Your task to perform on an android device: turn on priority inbox in the gmail app Image 0: 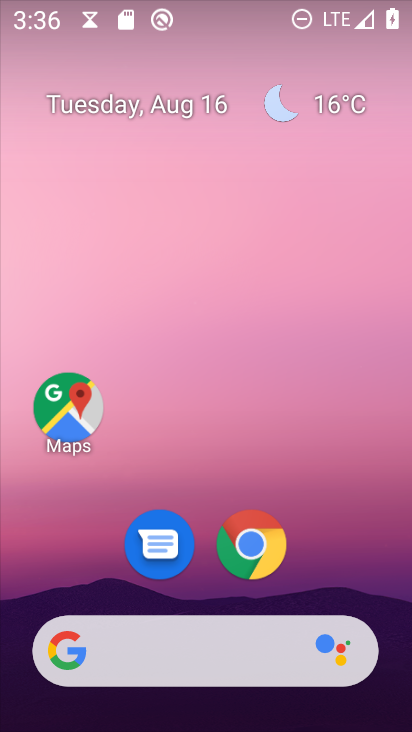
Step 0: drag from (201, 660) to (224, 104)
Your task to perform on an android device: turn on priority inbox in the gmail app Image 1: 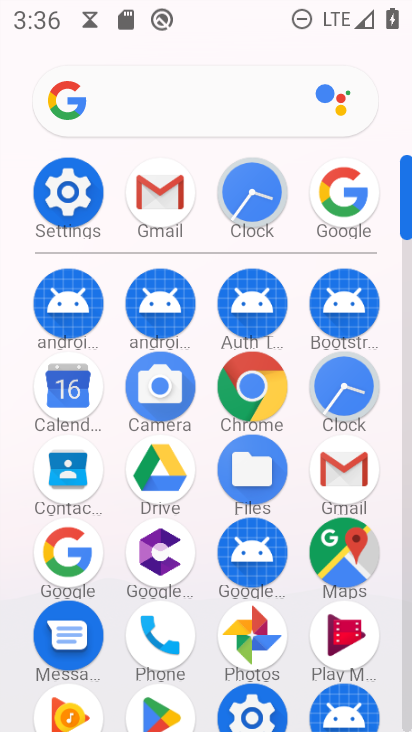
Step 1: click (158, 191)
Your task to perform on an android device: turn on priority inbox in the gmail app Image 2: 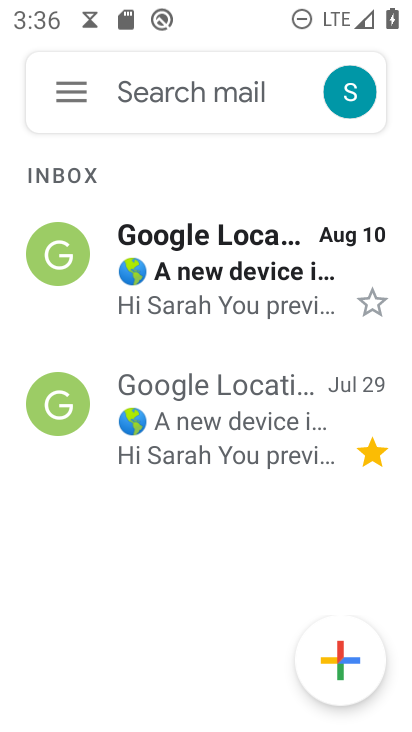
Step 2: click (76, 97)
Your task to perform on an android device: turn on priority inbox in the gmail app Image 3: 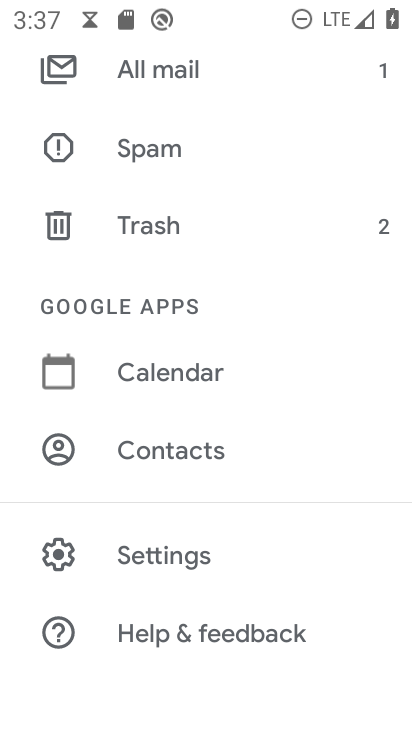
Step 3: click (188, 558)
Your task to perform on an android device: turn on priority inbox in the gmail app Image 4: 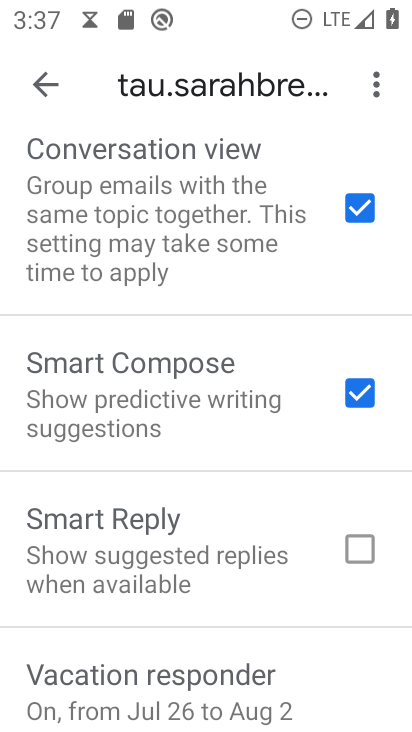
Step 4: drag from (210, 165) to (222, 433)
Your task to perform on an android device: turn on priority inbox in the gmail app Image 5: 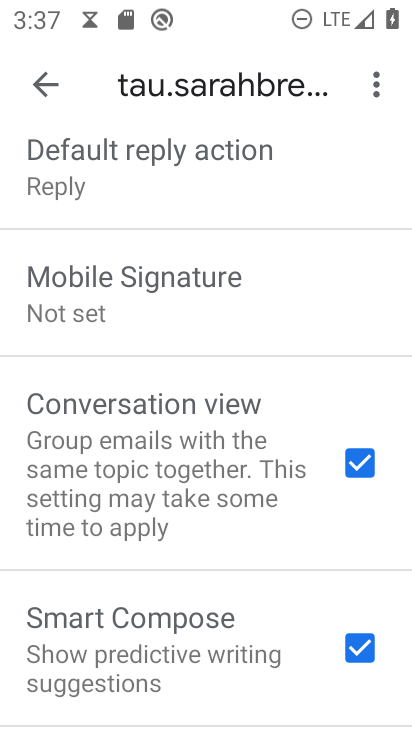
Step 5: drag from (177, 183) to (190, 373)
Your task to perform on an android device: turn on priority inbox in the gmail app Image 6: 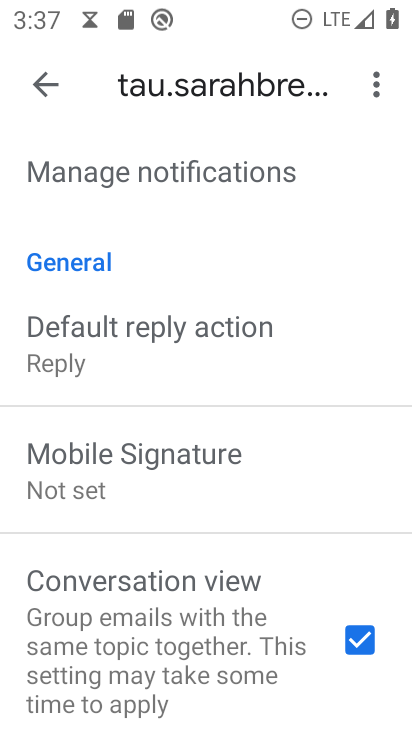
Step 6: drag from (213, 222) to (242, 400)
Your task to perform on an android device: turn on priority inbox in the gmail app Image 7: 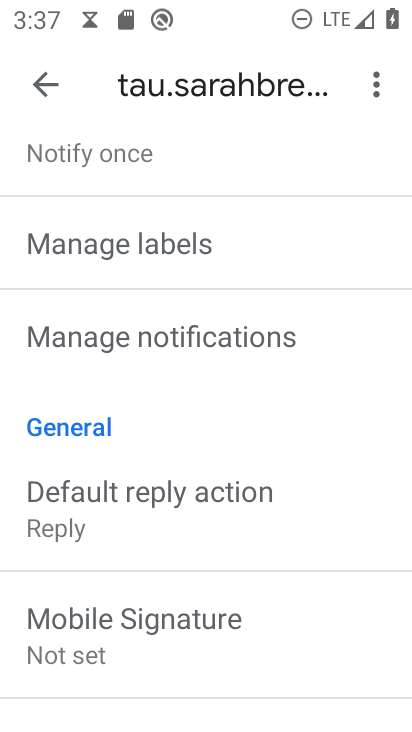
Step 7: drag from (218, 225) to (223, 407)
Your task to perform on an android device: turn on priority inbox in the gmail app Image 8: 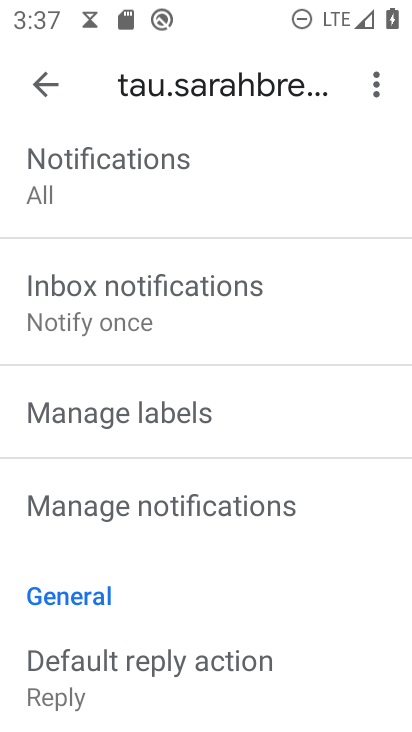
Step 8: drag from (166, 205) to (180, 367)
Your task to perform on an android device: turn on priority inbox in the gmail app Image 9: 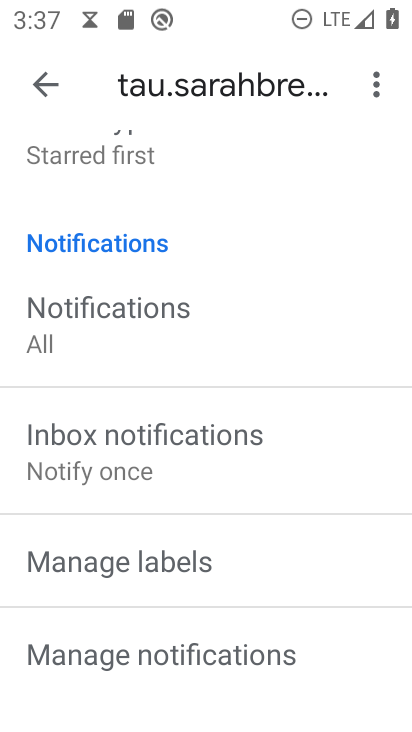
Step 9: drag from (174, 218) to (181, 324)
Your task to perform on an android device: turn on priority inbox in the gmail app Image 10: 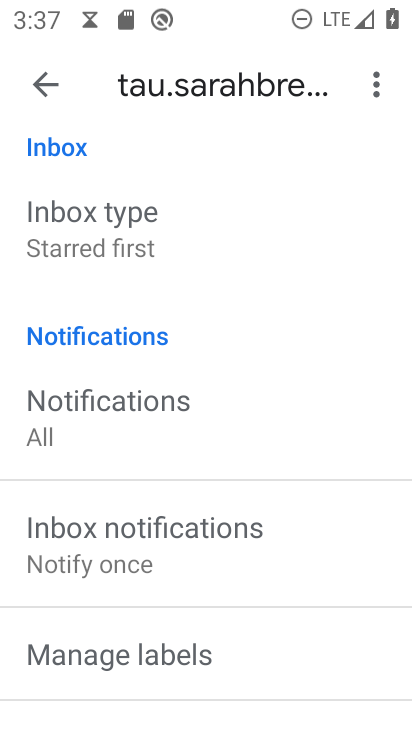
Step 10: click (113, 247)
Your task to perform on an android device: turn on priority inbox in the gmail app Image 11: 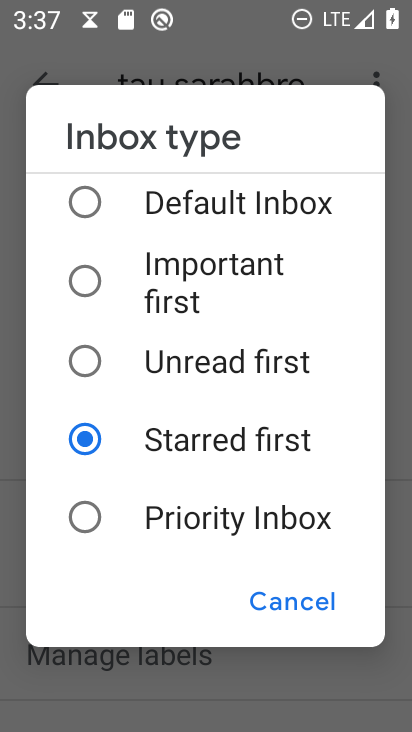
Step 11: click (82, 517)
Your task to perform on an android device: turn on priority inbox in the gmail app Image 12: 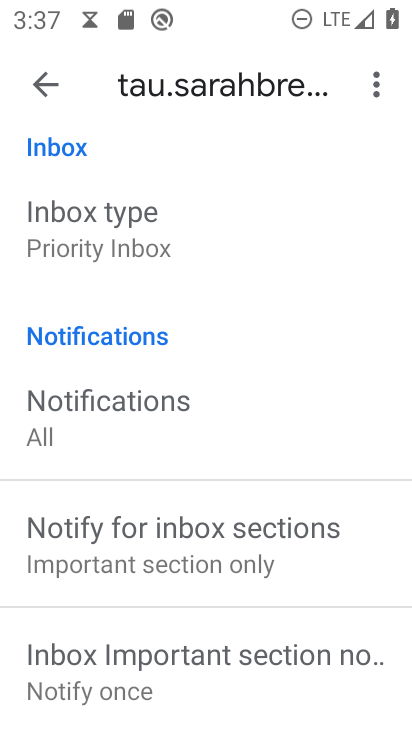
Step 12: task complete